Your task to perform on an android device: turn off location history Image 0: 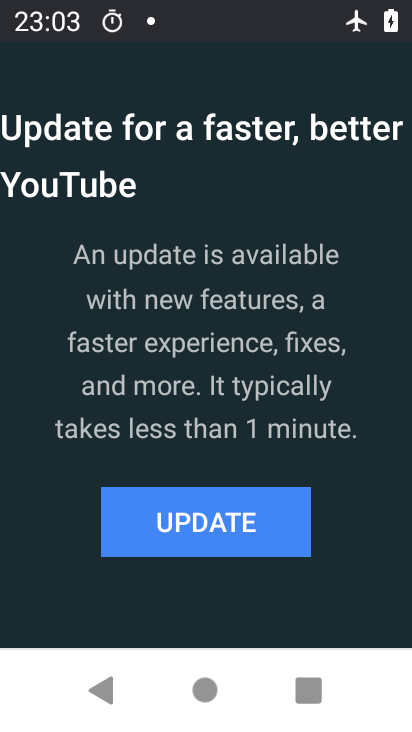
Step 0: press home button
Your task to perform on an android device: turn off location history Image 1: 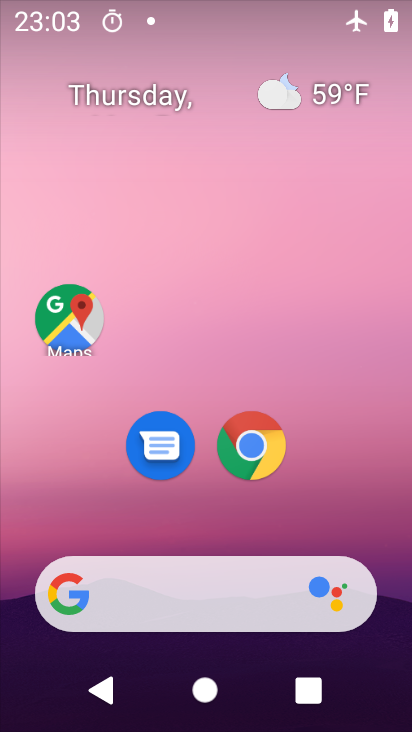
Step 1: drag from (166, 590) to (218, 200)
Your task to perform on an android device: turn off location history Image 2: 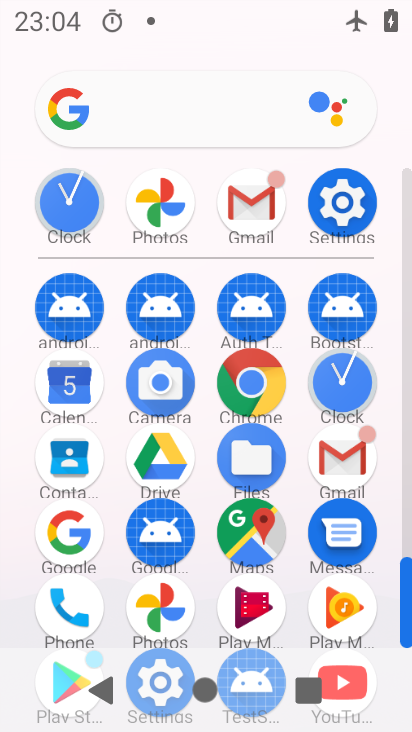
Step 2: click (338, 208)
Your task to perform on an android device: turn off location history Image 3: 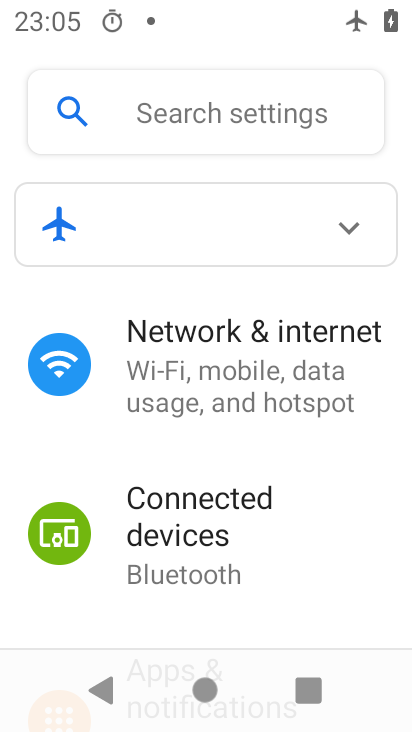
Step 3: drag from (247, 491) to (255, 175)
Your task to perform on an android device: turn off location history Image 4: 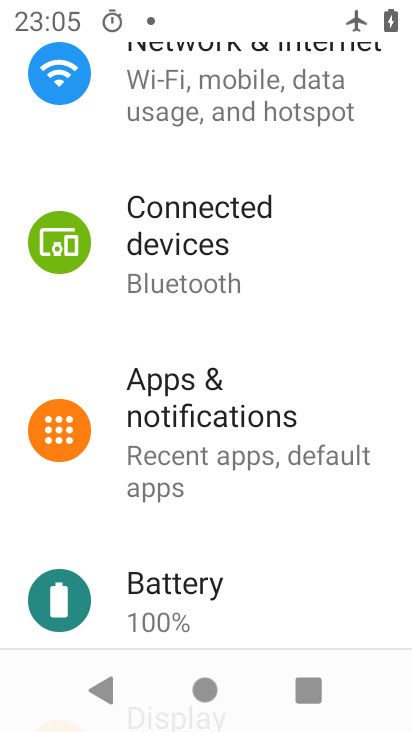
Step 4: drag from (207, 543) to (219, 352)
Your task to perform on an android device: turn off location history Image 5: 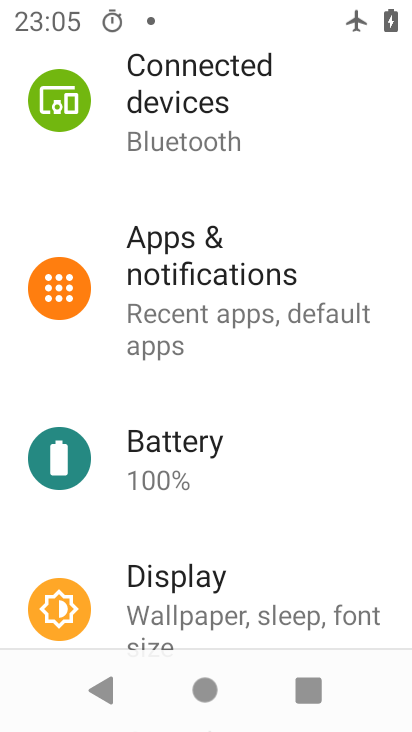
Step 5: drag from (261, 588) to (246, 225)
Your task to perform on an android device: turn off location history Image 6: 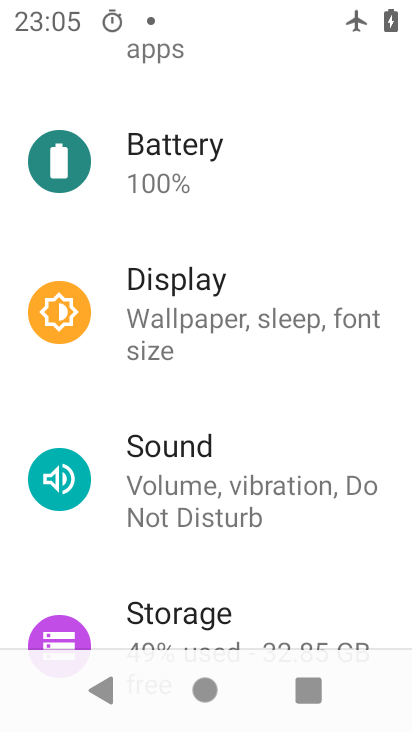
Step 6: drag from (208, 555) to (243, 46)
Your task to perform on an android device: turn off location history Image 7: 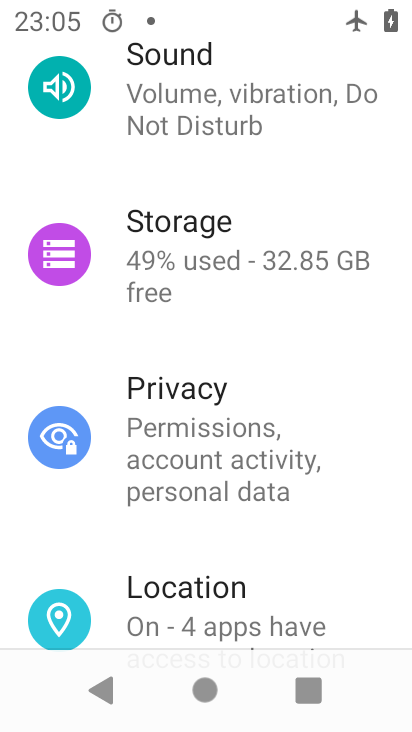
Step 7: click (210, 577)
Your task to perform on an android device: turn off location history Image 8: 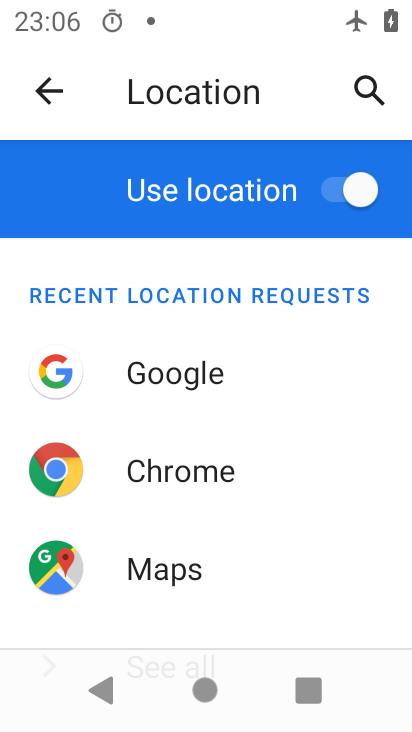
Step 8: drag from (194, 583) to (203, 67)
Your task to perform on an android device: turn off location history Image 9: 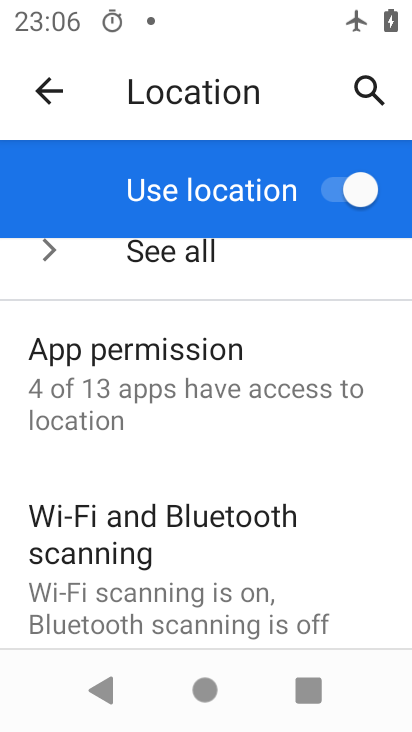
Step 9: drag from (250, 575) to (310, 237)
Your task to perform on an android device: turn off location history Image 10: 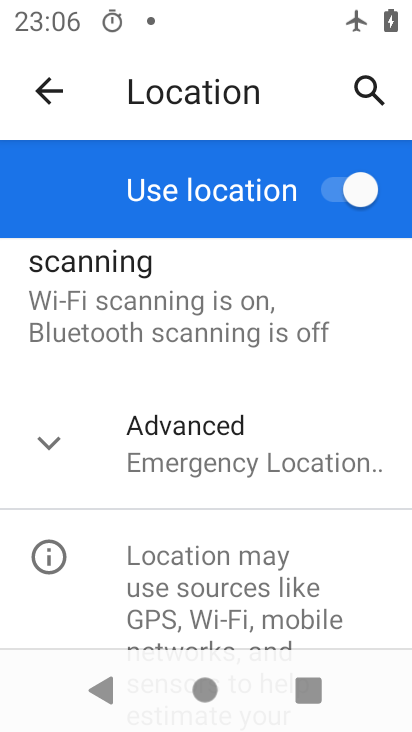
Step 10: drag from (252, 566) to (303, 254)
Your task to perform on an android device: turn off location history Image 11: 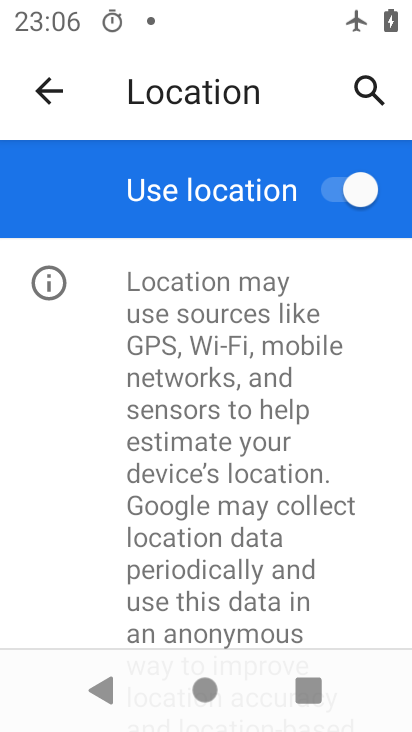
Step 11: drag from (255, 567) to (290, 72)
Your task to perform on an android device: turn off location history Image 12: 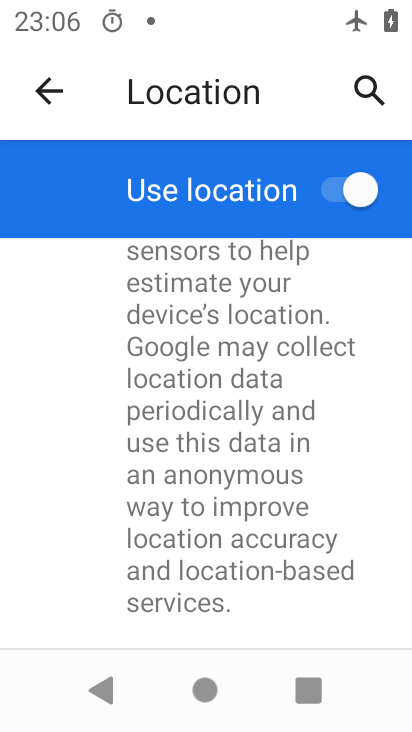
Step 12: drag from (218, 363) to (168, 722)
Your task to perform on an android device: turn off location history Image 13: 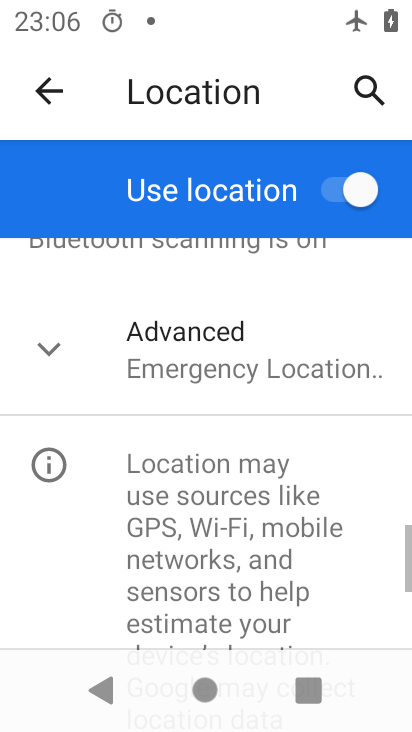
Step 13: click (187, 346)
Your task to perform on an android device: turn off location history Image 14: 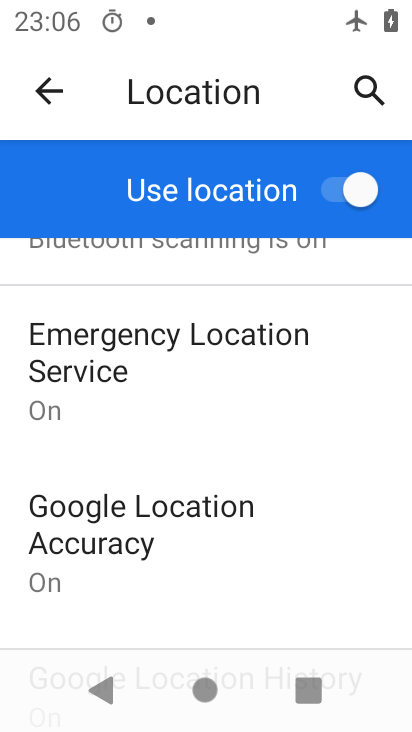
Step 14: drag from (247, 463) to (230, 217)
Your task to perform on an android device: turn off location history Image 15: 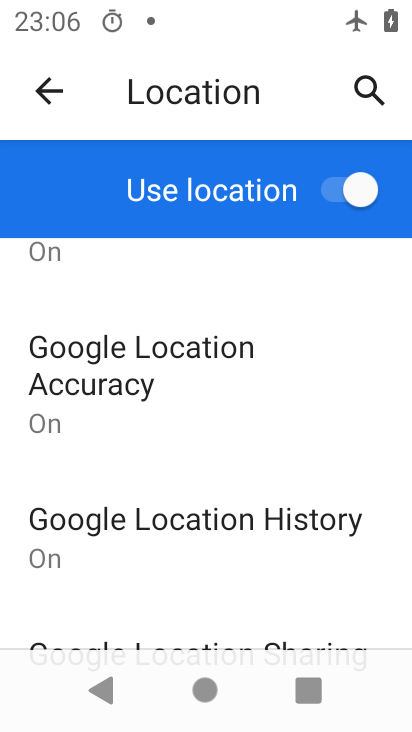
Step 15: click (175, 519)
Your task to perform on an android device: turn off location history Image 16: 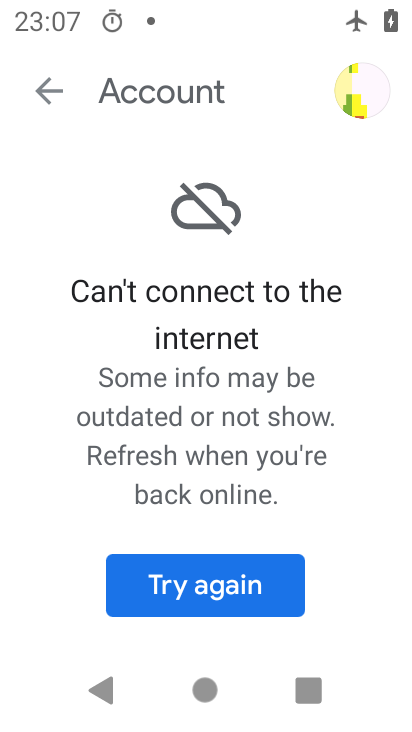
Step 16: task complete